Your task to perform on an android device: empty trash in google photos Image 0: 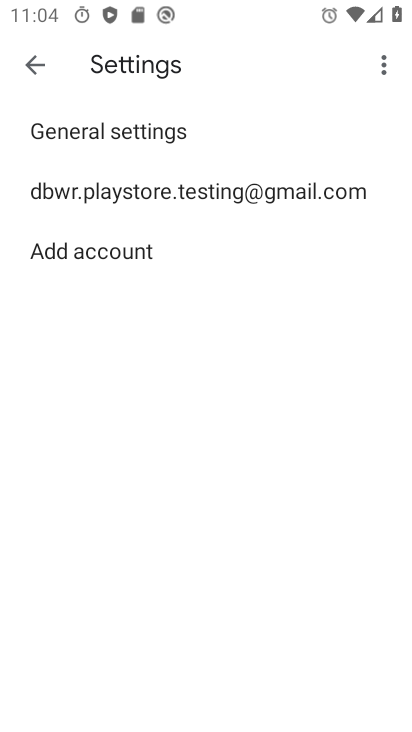
Step 0: click (30, 56)
Your task to perform on an android device: empty trash in google photos Image 1: 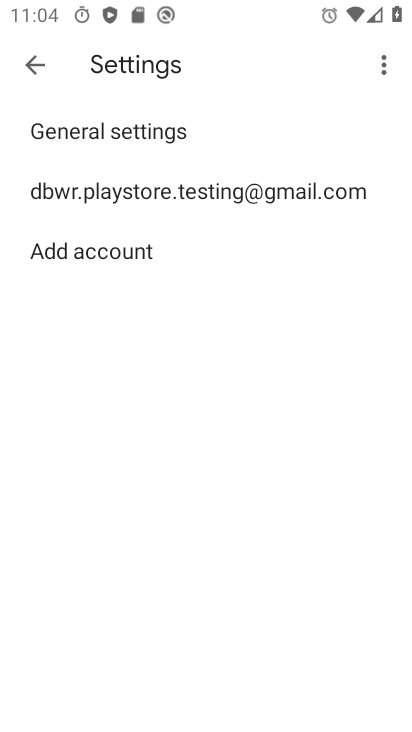
Step 1: click (30, 56)
Your task to perform on an android device: empty trash in google photos Image 2: 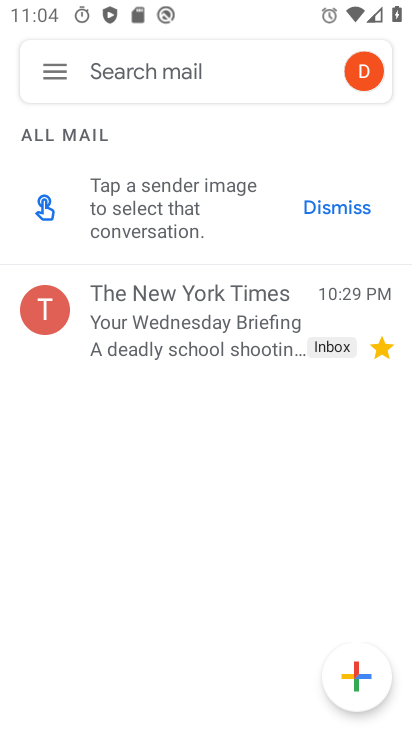
Step 2: press back button
Your task to perform on an android device: empty trash in google photos Image 3: 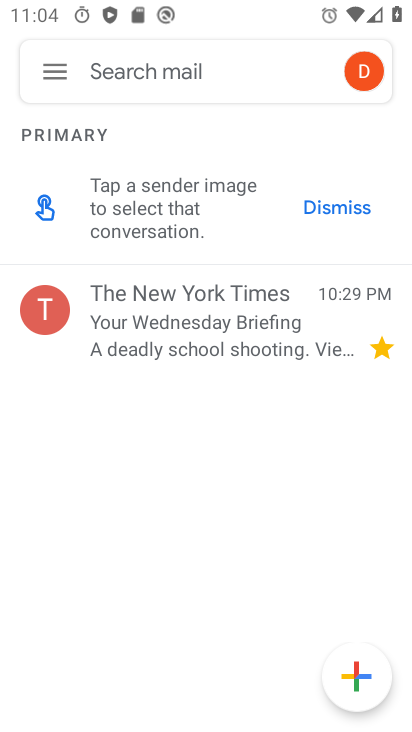
Step 3: press home button
Your task to perform on an android device: empty trash in google photos Image 4: 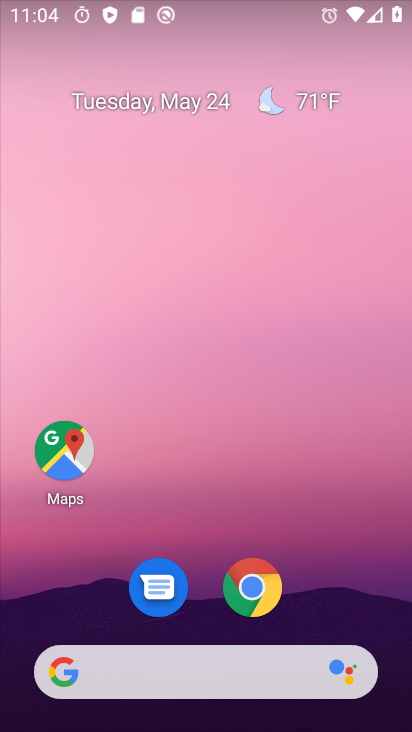
Step 4: drag from (352, 625) to (138, 22)
Your task to perform on an android device: empty trash in google photos Image 5: 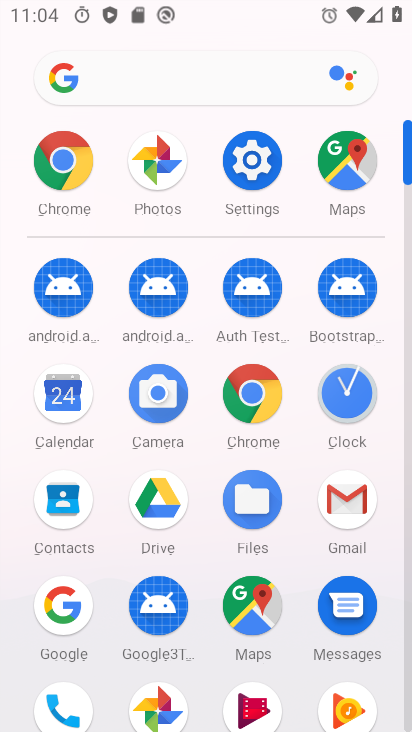
Step 5: click (165, 701)
Your task to perform on an android device: empty trash in google photos Image 6: 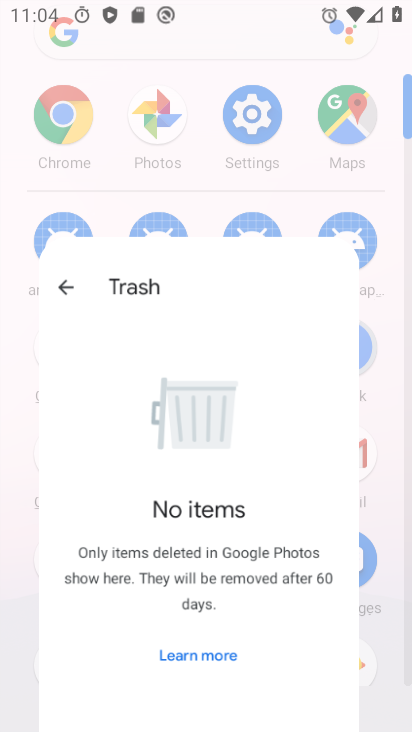
Step 6: click (164, 702)
Your task to perform on an android device: empty trash in google photos Image 7: 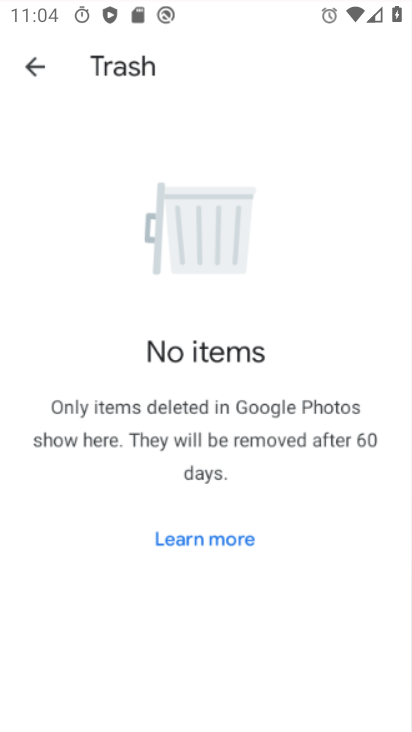
Step 7: click (163, 700)
Your task to perform on an android device: empty trash in google photos Image 8: 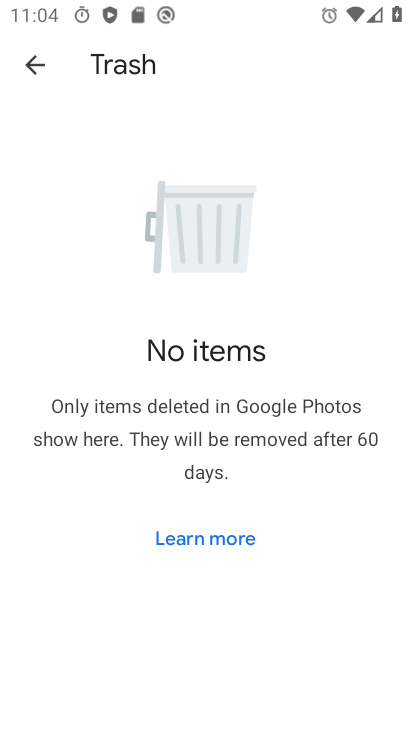
Step 8: click (25, 66)
Your task to perform on an android device: empty trash in google photos Image 9: 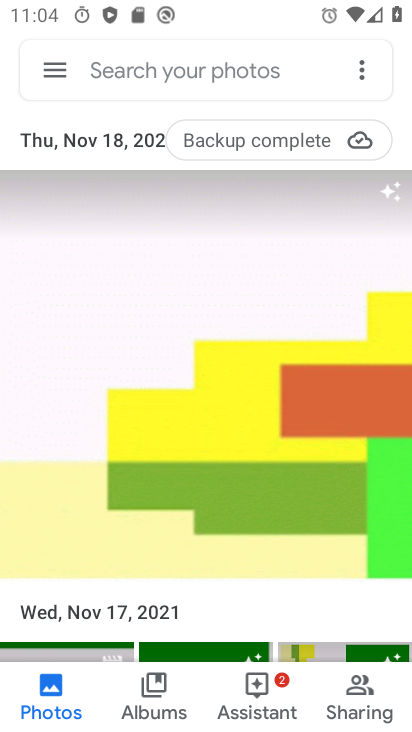
Step 9: click (46, 63)
Your task to perform on an android device: empty trash in google photos Image 10: 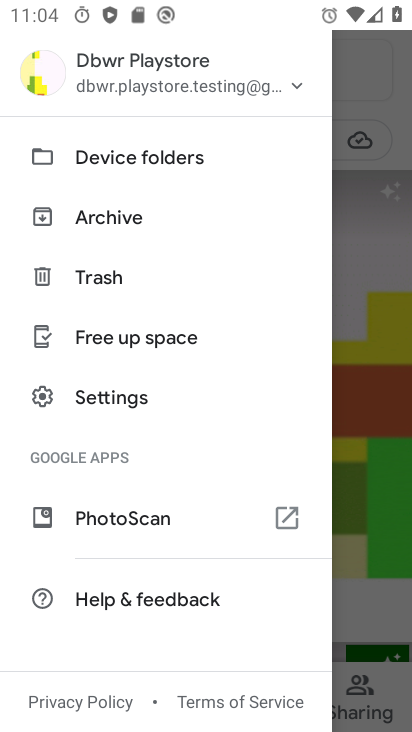
Step 10: click (109, 276)
Your task to perform on an android device: empty trash in google photos Image 11: 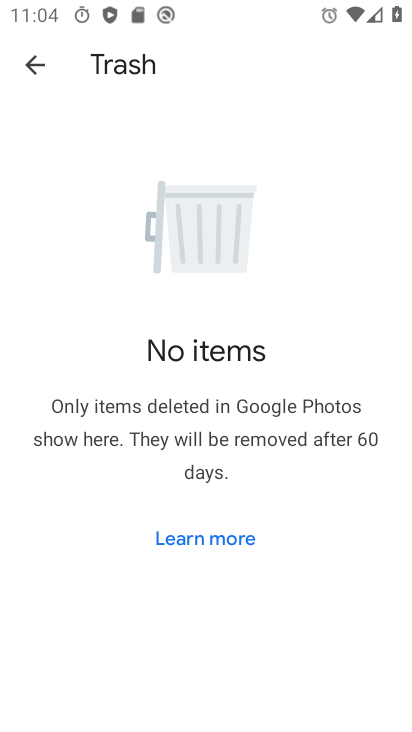
Step 11: task complete